Your task to perform on an android device: Open notification settings Image 0: 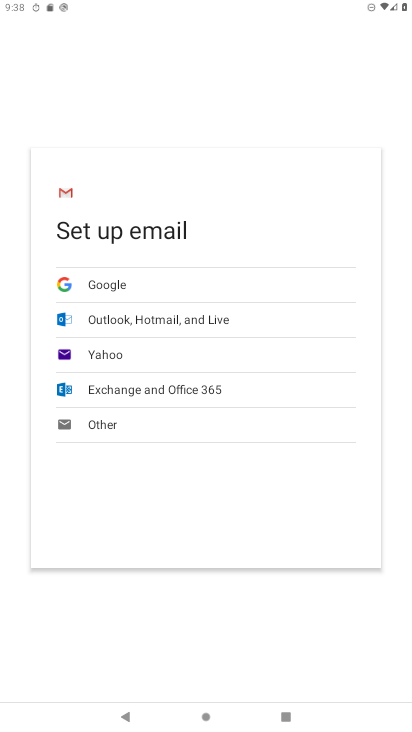
Step 0: press home button
Your task to perform on an android device: Open notification settings Image 1: 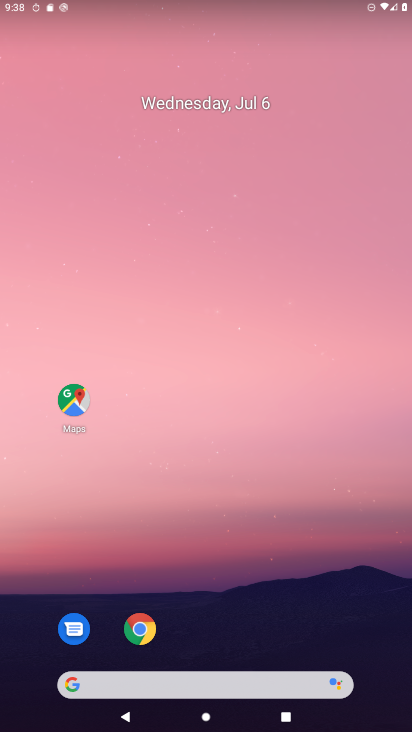
Step 1: drag from (230, 728) to (212, 179)
Your task to perform on an android device: Open notification settings Image 2: 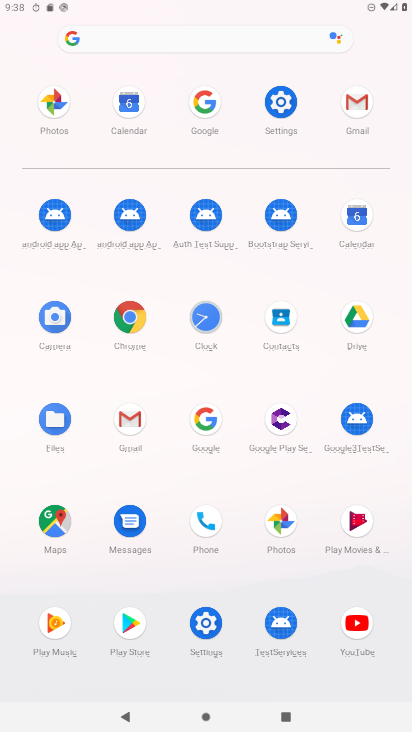
Step 2: click (286, 101)
Your task to perform on an android device: Open notification settings Image 3: 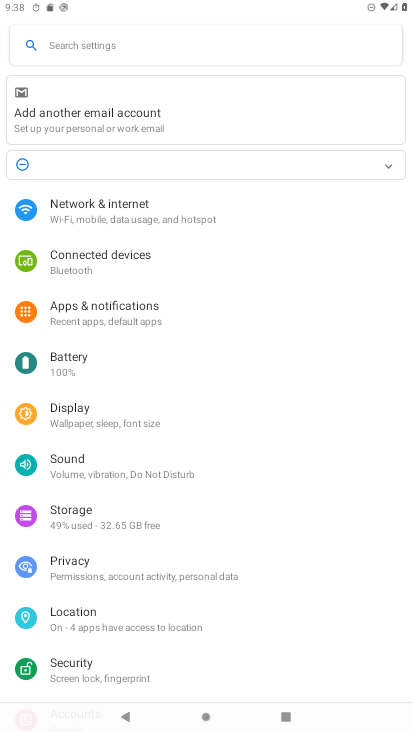
Step 3: click (78, 314)
Your task to perform on an android device: Open notification settings Image 4: 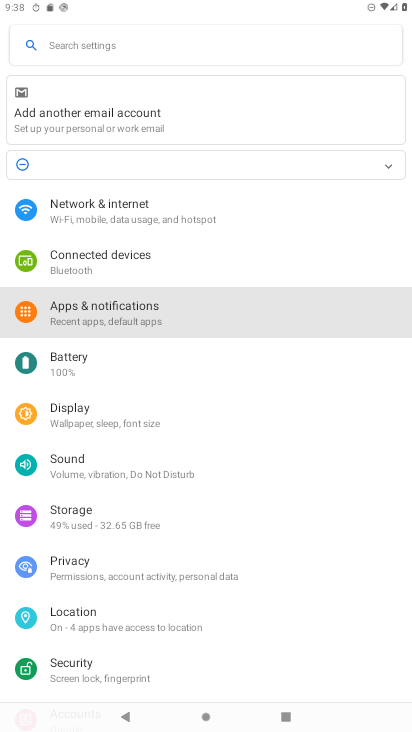
Step 4: click (78, 314)
Your task to perform on an android device: Open notification settings Image 5: 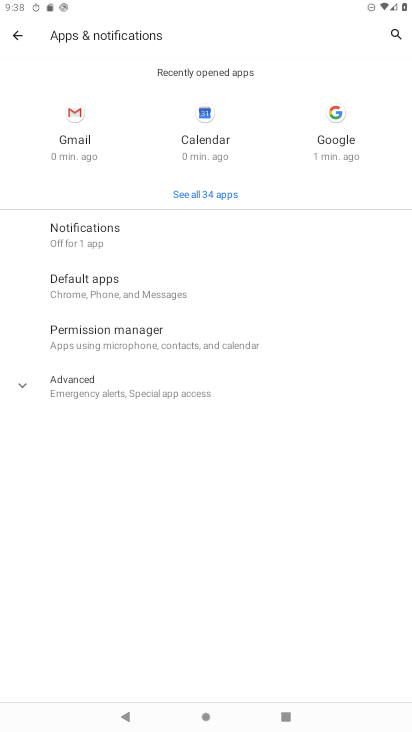
Step 5: click (84, 230)
Your task to perform on an android device: Open notification settings Image 6: 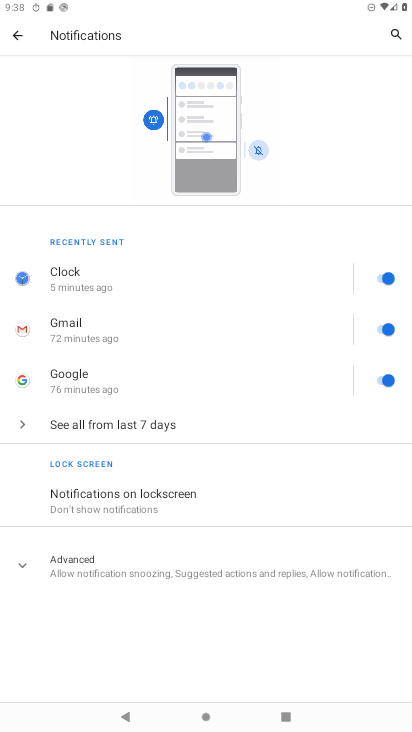
Step 6: task complete